Your task to perform on an android device: move an email to a new category in the gmail app Image 0: 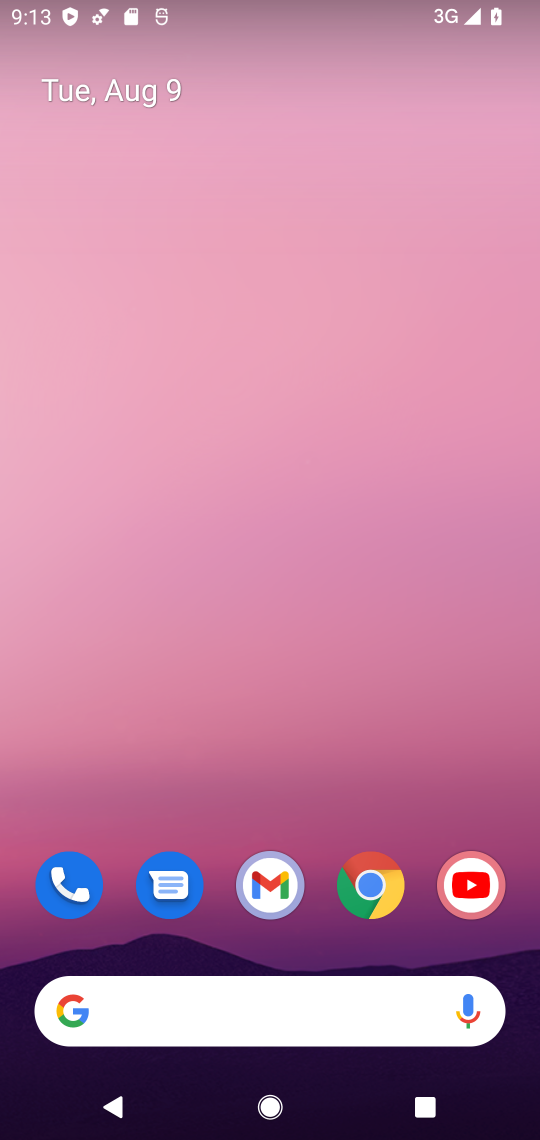
Step 0: press home button
Your task to perform on an android device: move an email to a new category in the gmail app Image 1: 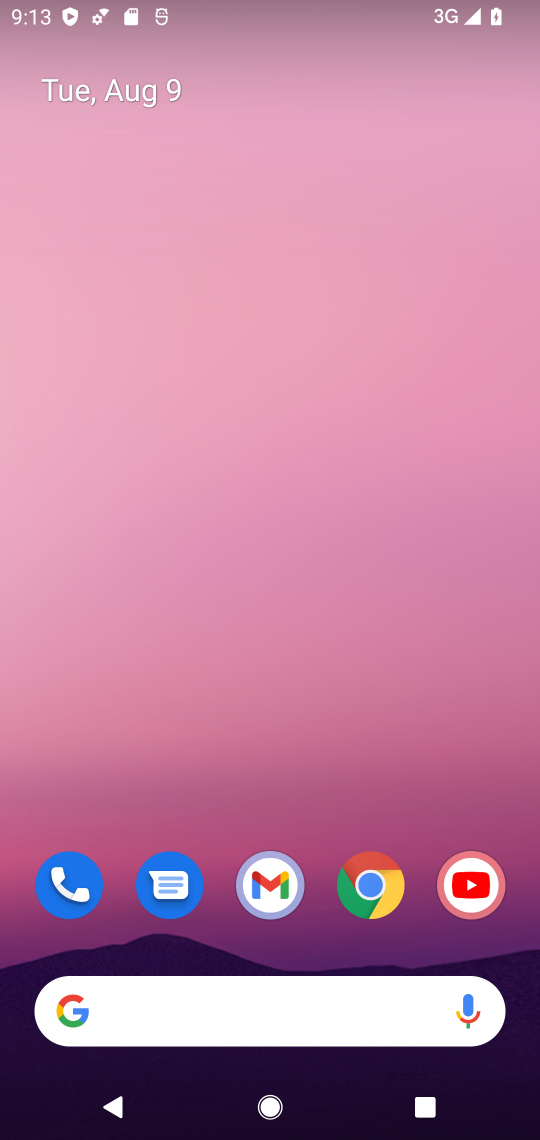
Step 1: drag from (311, 815) to (293, 5)
Your task to perform on an android device: move an email to a new category in the gmail app Image 2: 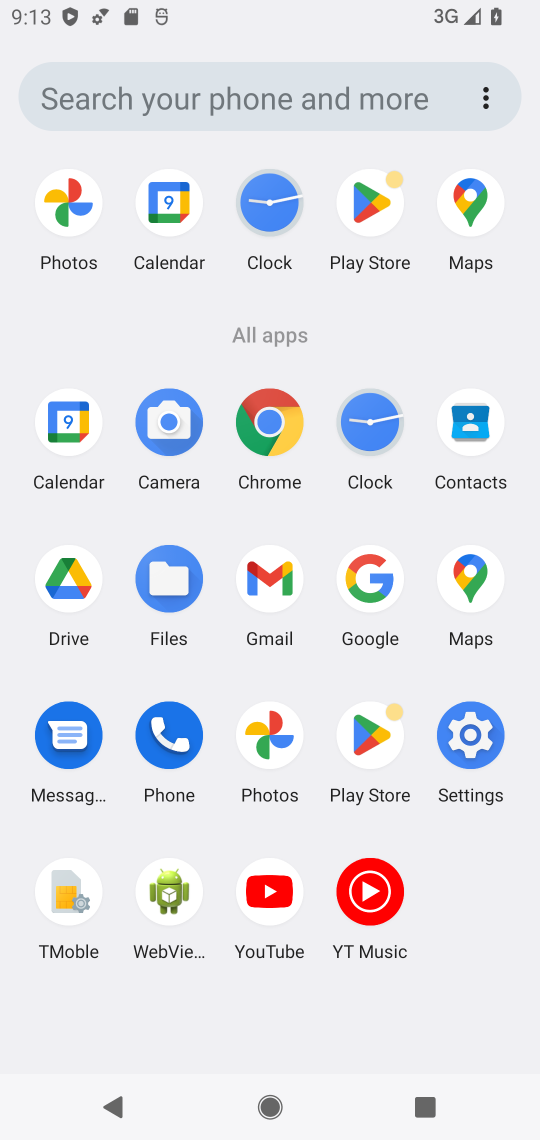
Step 2: click (258, 572)
Your task to perform on an android device: move an email to a new category in the gmail app Image 3: 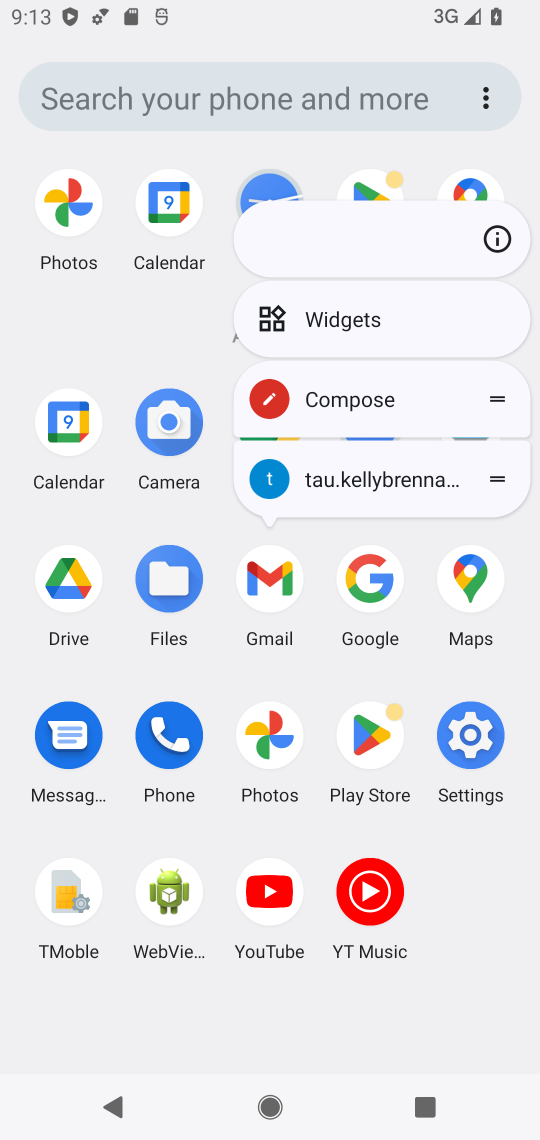
Step 3: click (260, 570)
Your task to perform on an android device: move an email to a new category in the gmail app Image 4: 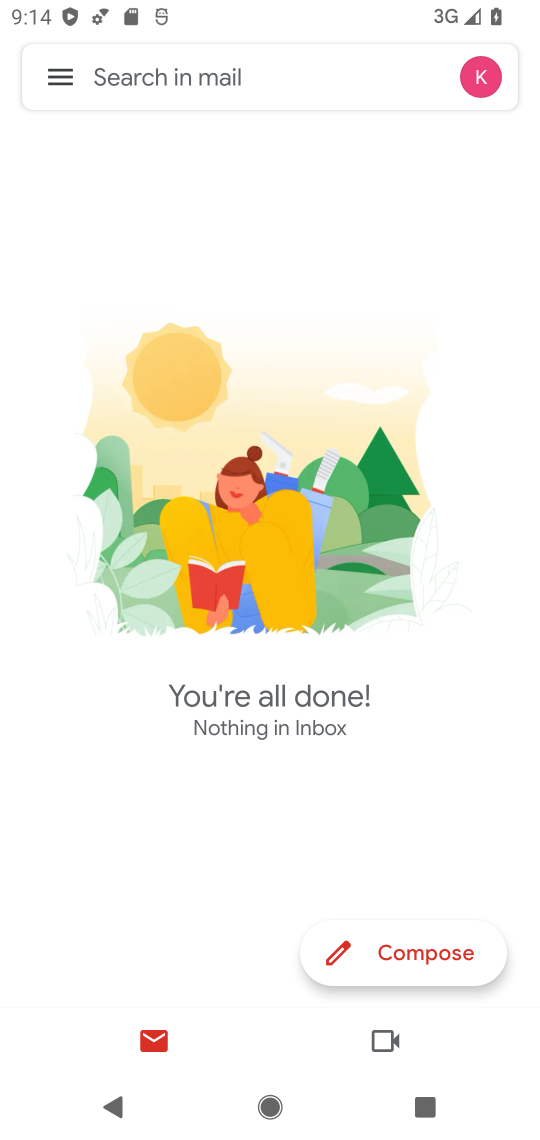
Step 4: task complete